Your task to perform on an android device: toggle improve location accuracy Image 0: 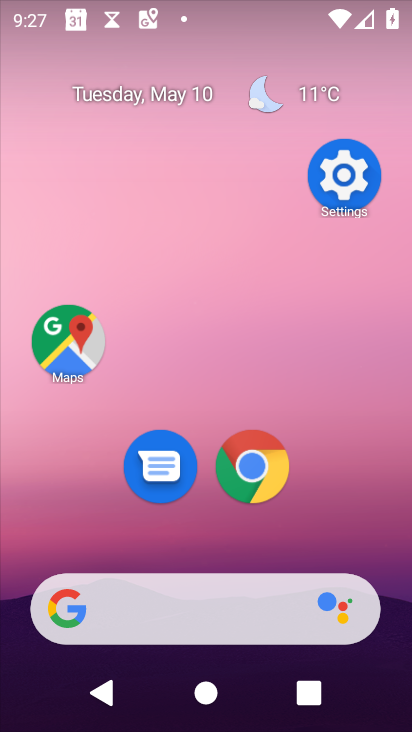
Step 0: drag from (305, 550) to (307, 110)
Your task to perform on an android device: toggle improve location accuracy Image 1: 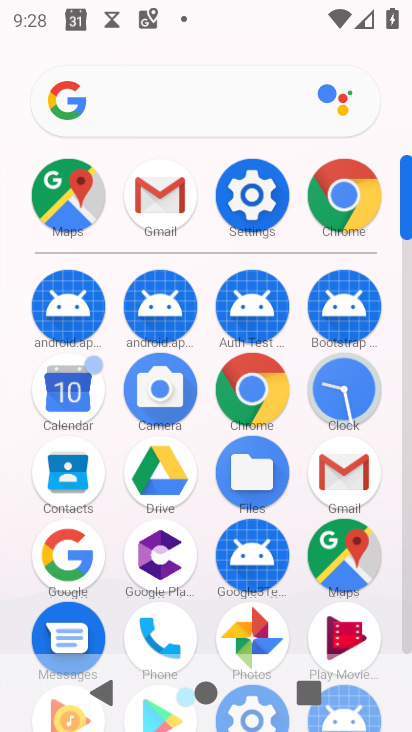
Step 1: click (248, 201)
Your task to perform on an android device: toggle improve location accuracy Image 2: 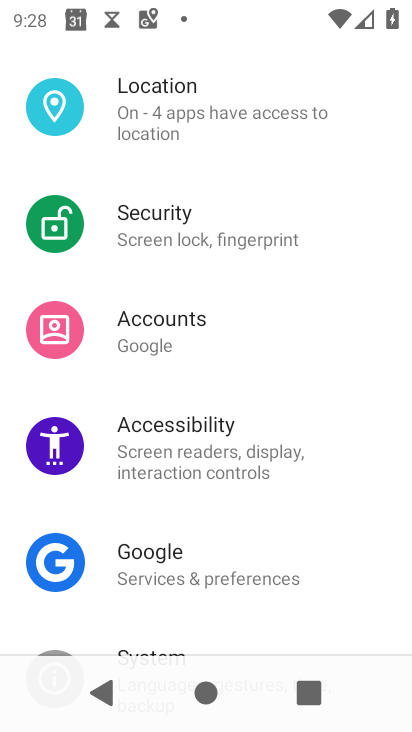
Step 2: click (207, 115)
Your task to perform on an android device: toggle improve location accuracy Image 3: 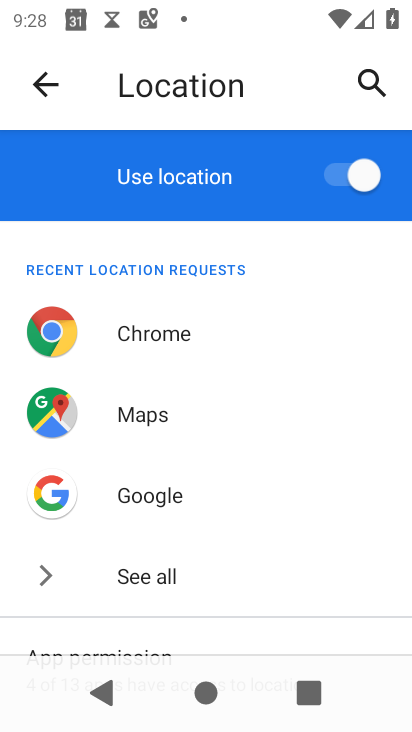
Step 3: drag from (198, 564) to (214, 363)
Your task to perform on an android device: toggle improve location accuracy Image 4: 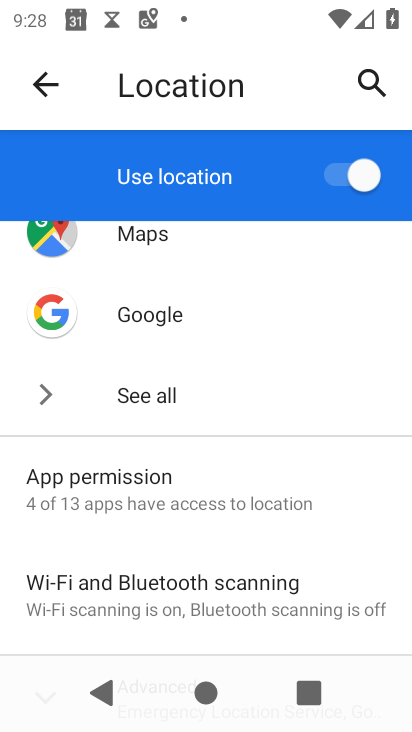
Step 4: drag from (232, 547) to (257, 328)
Your task to perform on an android device: toggle improve location accuracy Image 5: 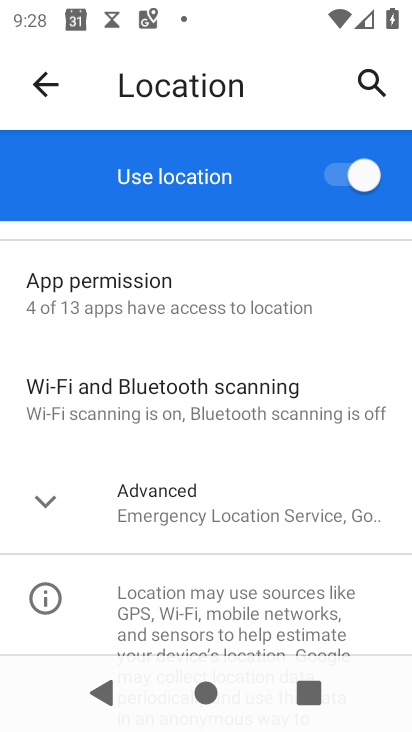
Step 5: click (275, 525)
Your task to perform on an android device: toggle improve location accuracy Image 6: 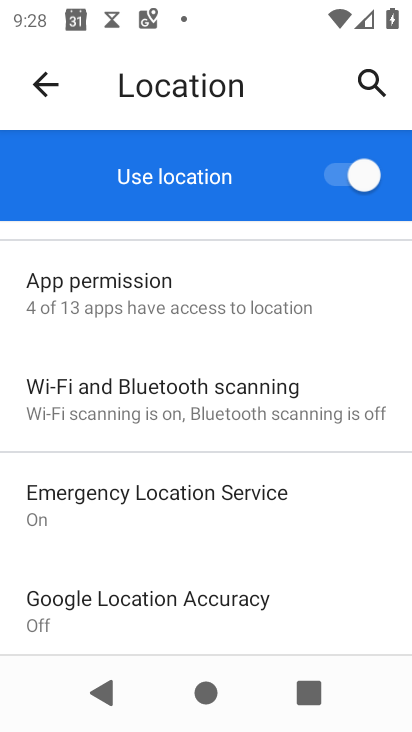
Step 6: click (231, 601)
Your task to perform on an android device: toggle improve location accuracy Image 7: 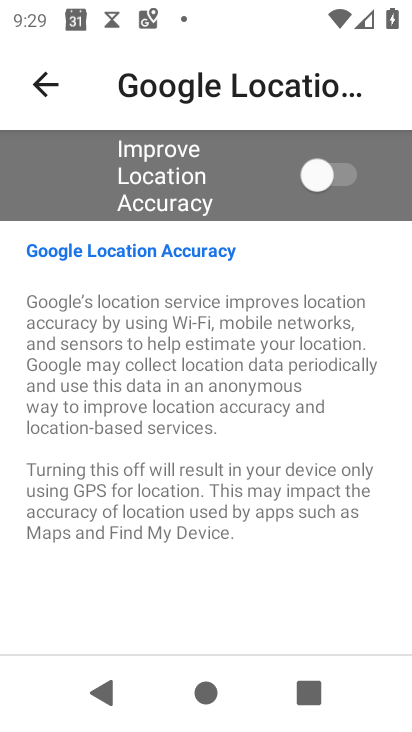
Step 7: click (324, 174)
Your task to perform on an android device: toggle improve location accuracy Image 8: 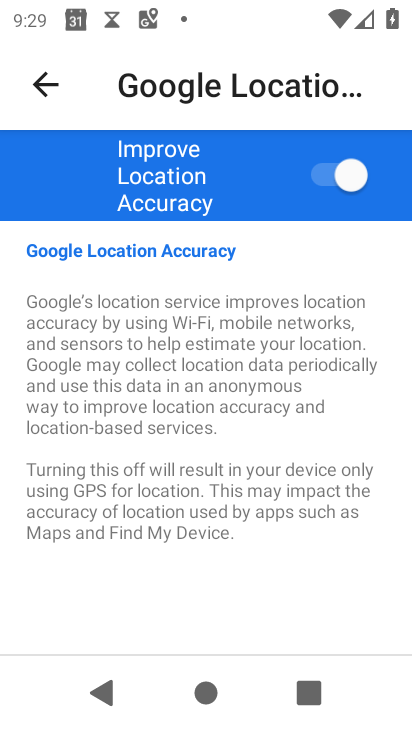
Step 8: task complete